Your task to perform on an android device: What's on my calendar tomorrow? Image 0: 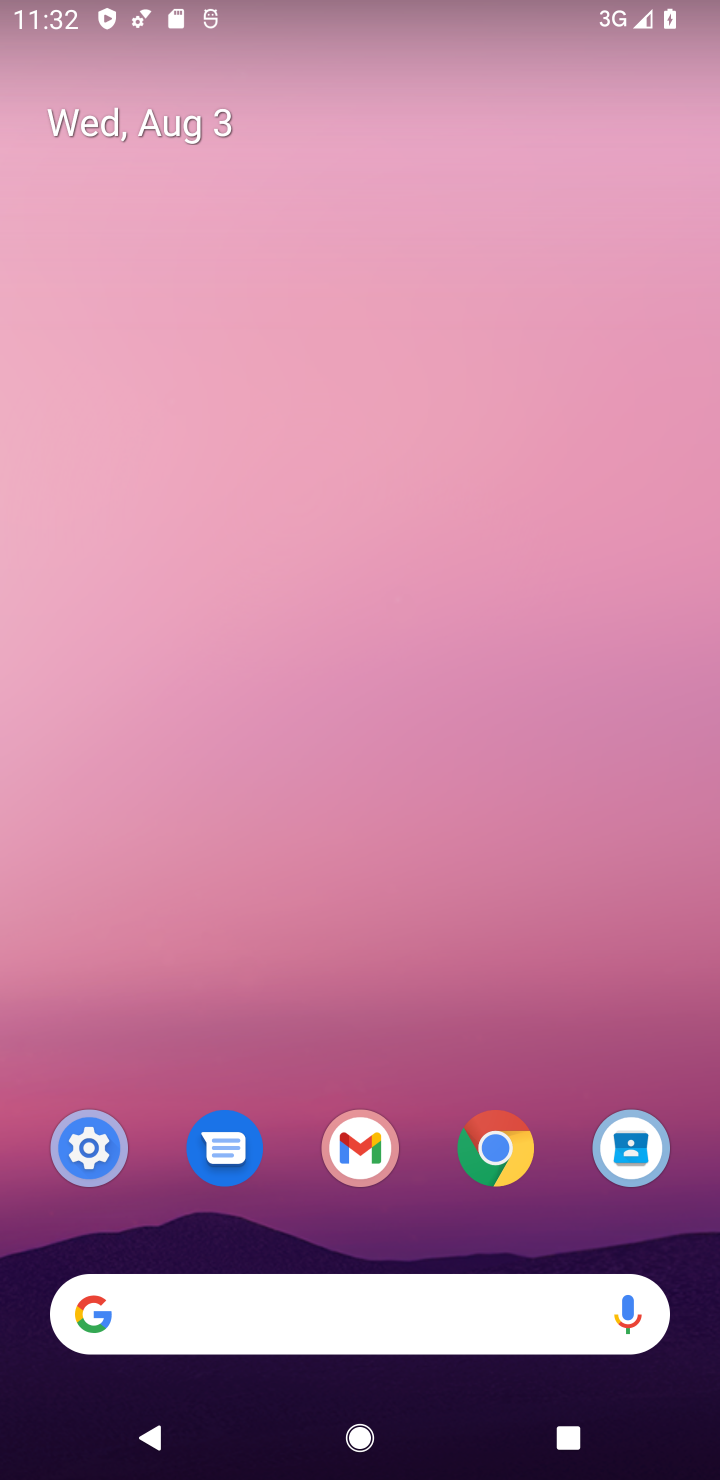
Step 0: drag from (358, 953) to (265, 0)
Your task to perform on an android device: What's on my calendar tomorrow? Image 1: 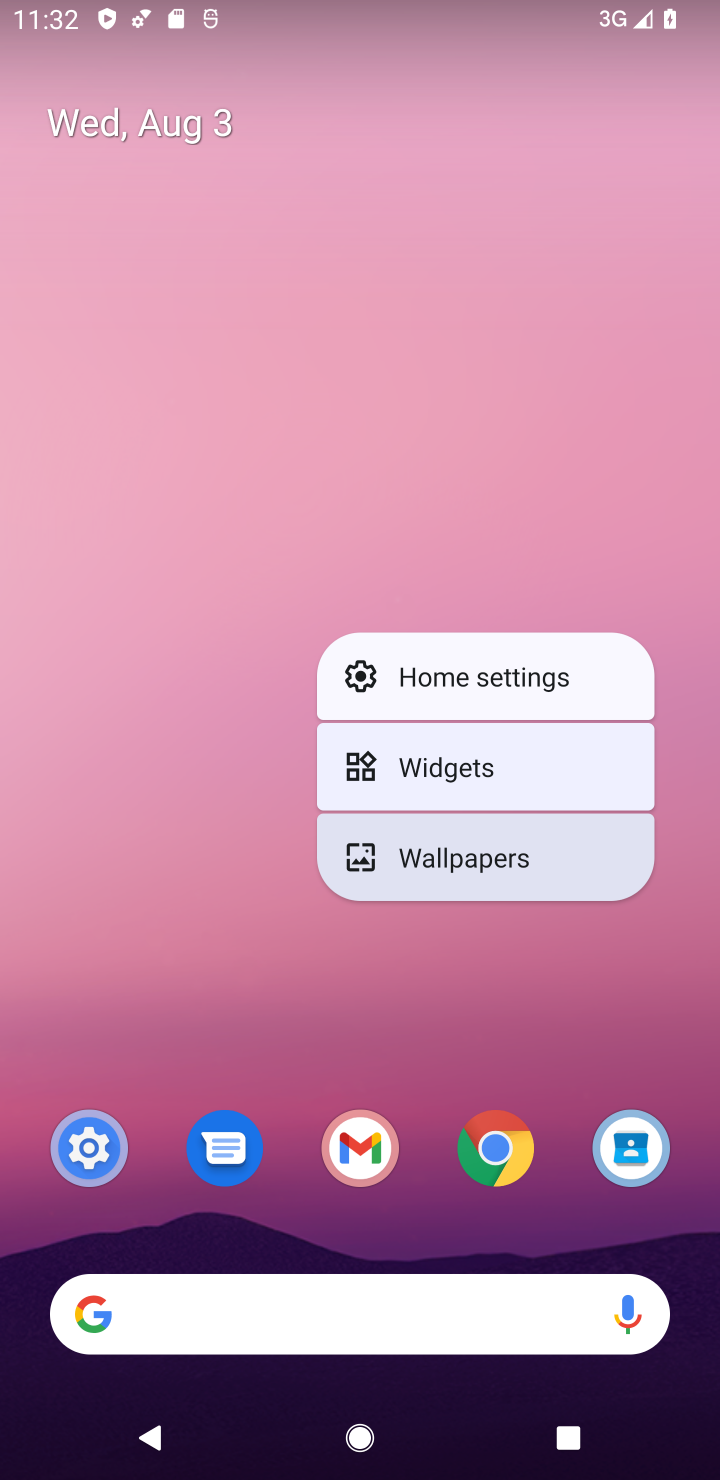
Step 1: click (153, 740)
Your task to perform on an android device: What's on my calendar tomorrow? Image 2: 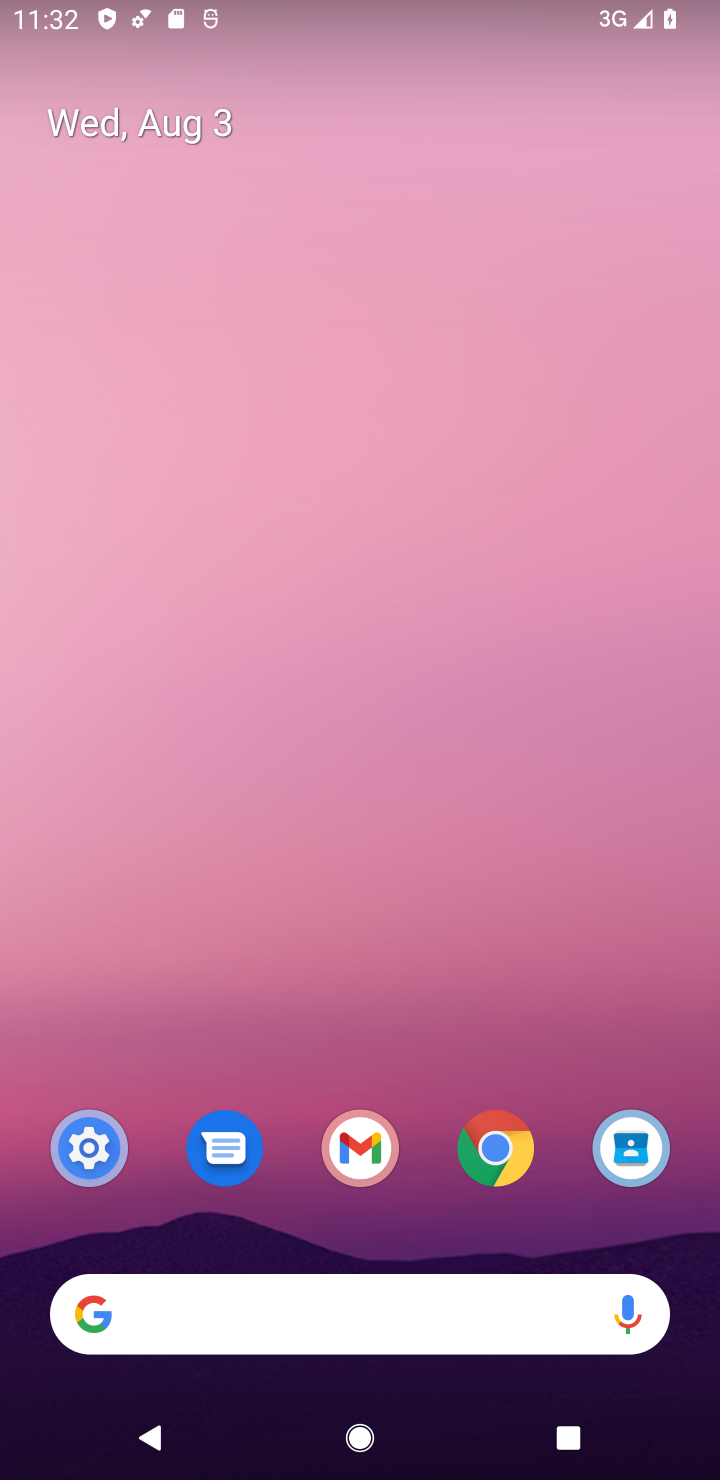
Step 2: drag from (283, 848) to (251, 533)
Your task to perform on an android device: What's on my calendar tomorrow? Image 3: 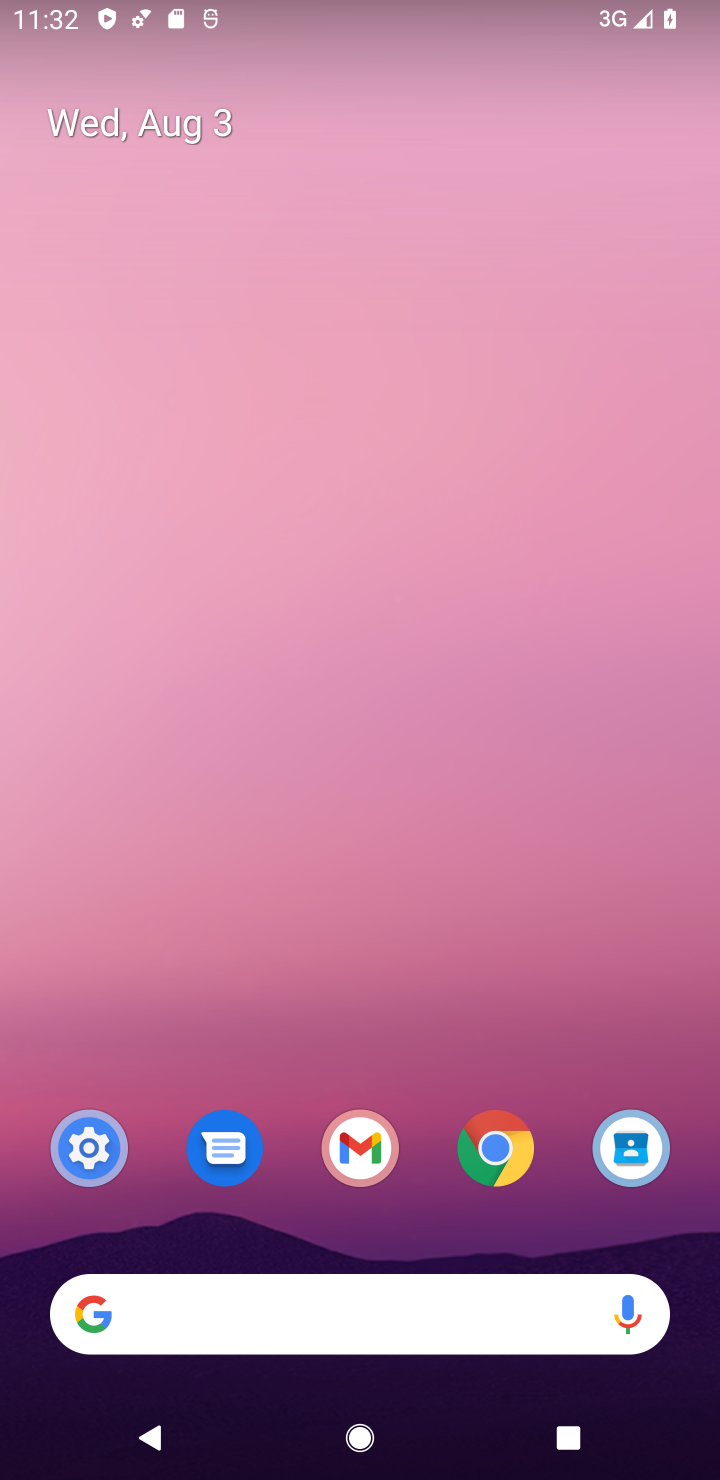
Step 3: drag from (513, 795) to (445, 416)
Your task to perform on an android device: What's on my calendar tomorrow? Image 4: 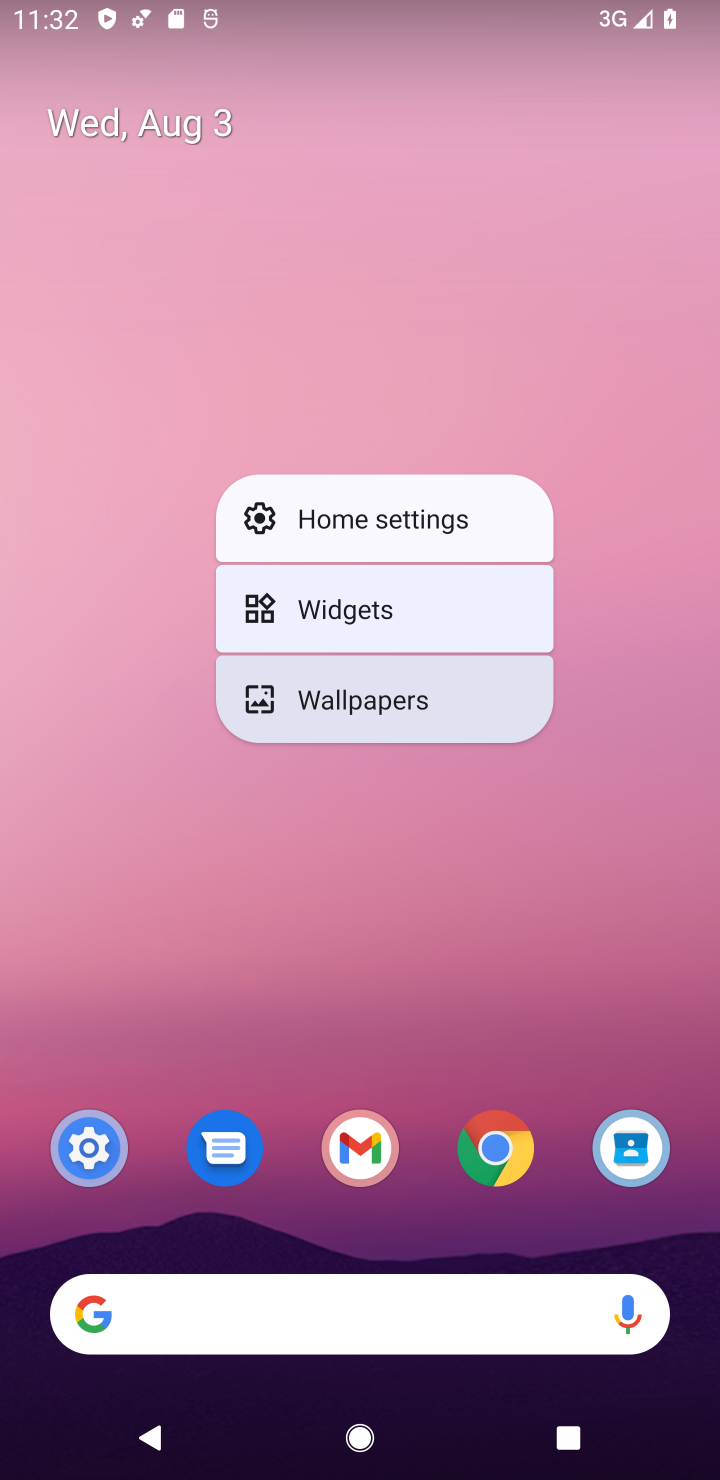
Step 4: click (413, 992)
Your task to perform on an android device: What's on my calendar tomorrow? Image 5: 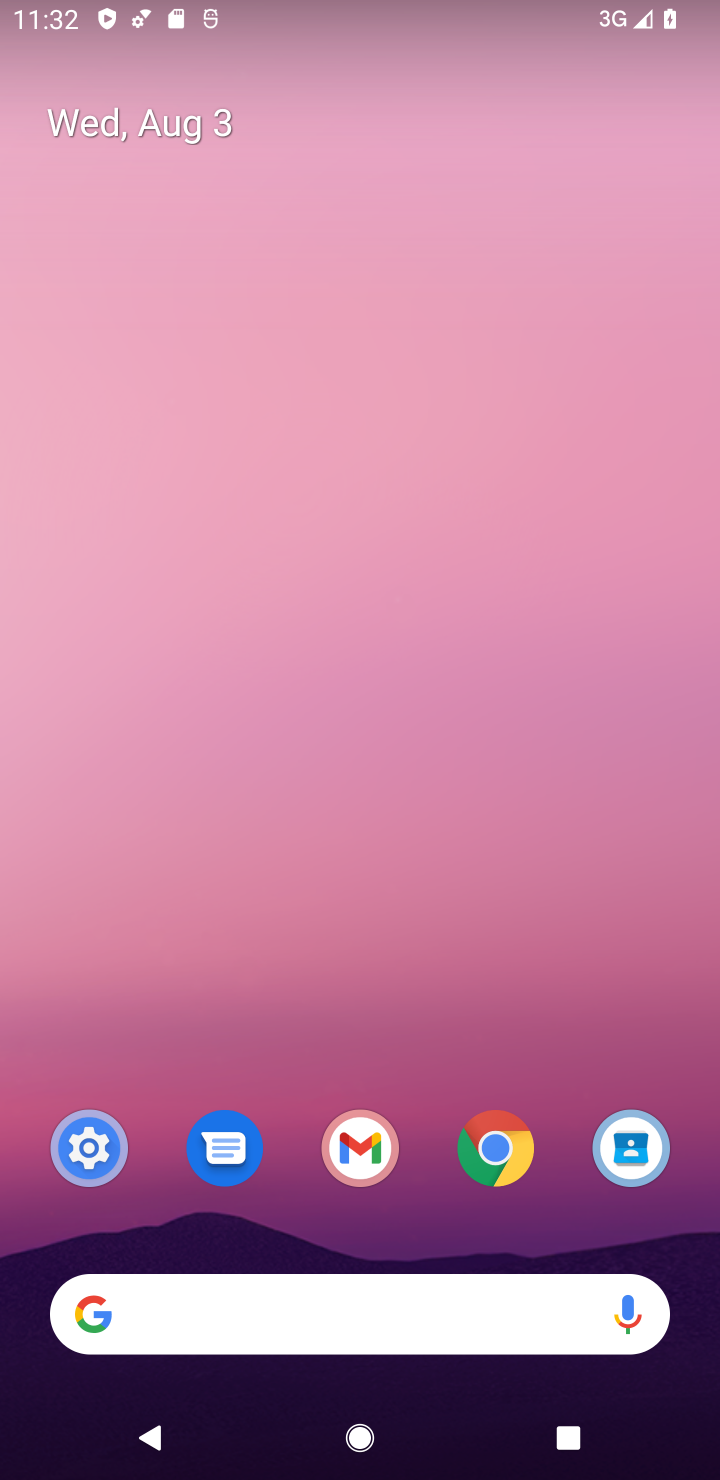
Step 5: drag from (413, 992) to (294, 229)
Your task to perform on an android device: What's on my calendar tomorrow? Image 6: 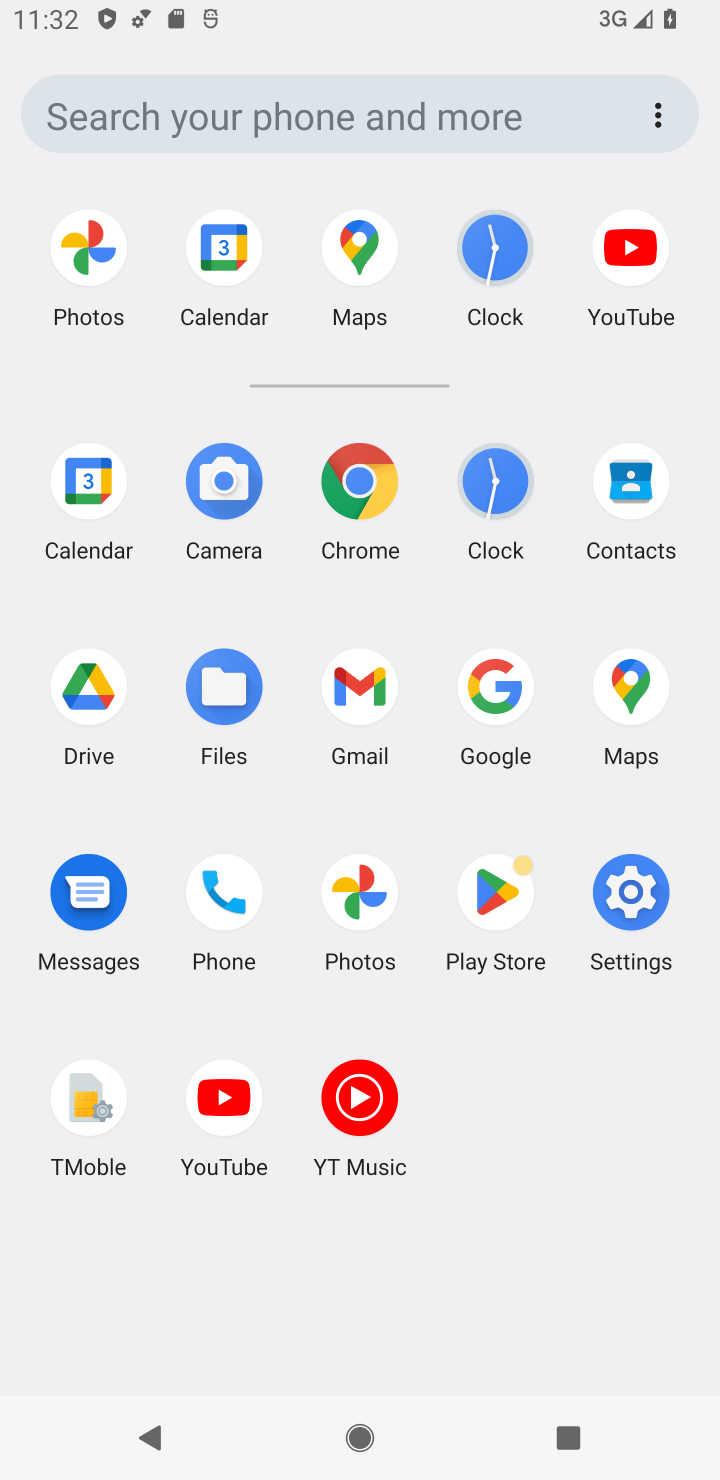
Step 6: click (97, 471)
Your task to perform on an android device: What's on my calendar tomorrow? Image 7: 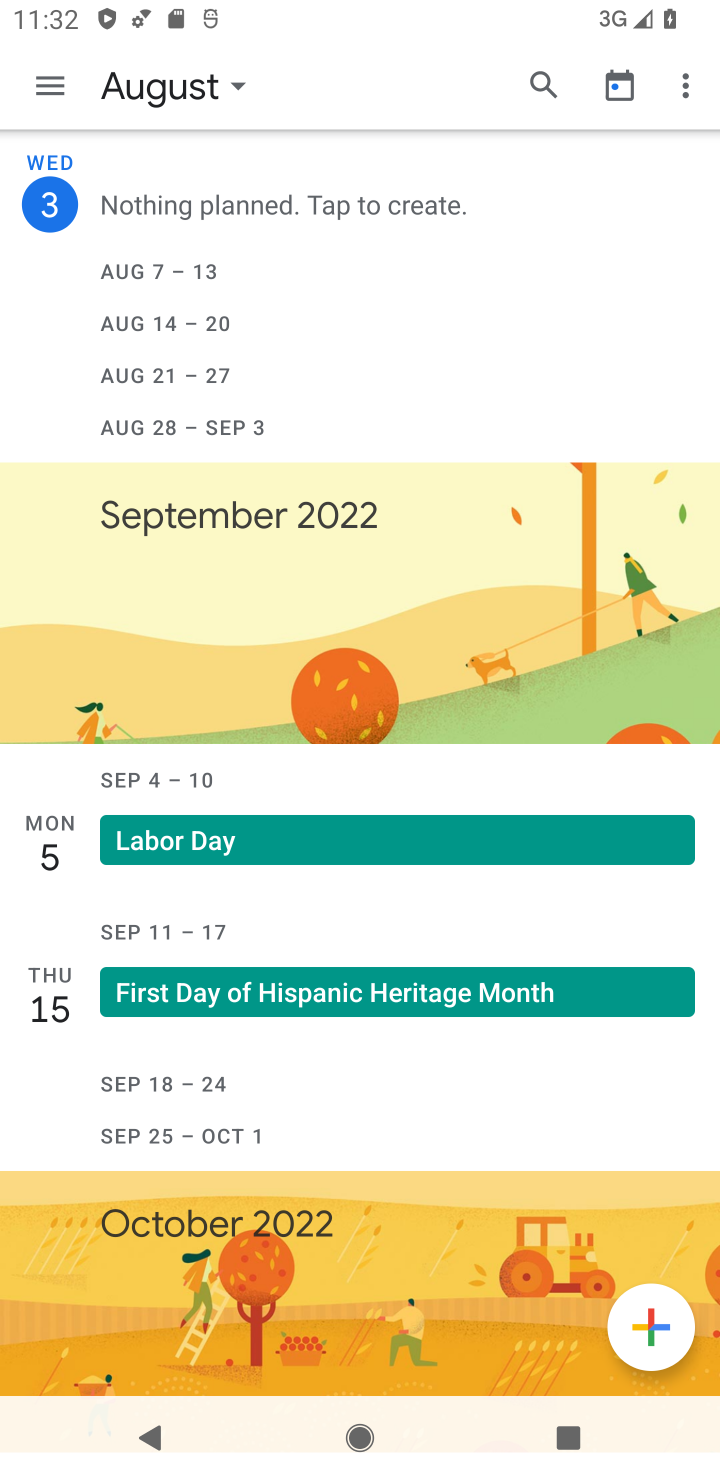
Step 7: task complete